Your task to perform on an android device: Open notification settings Image 0: 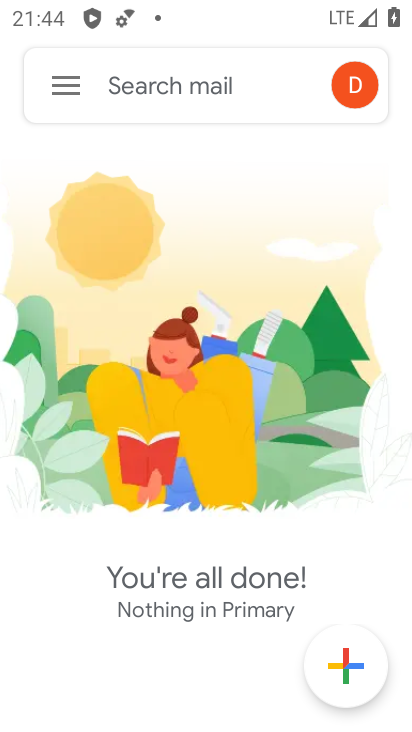
Step 0: press home button
Your task to perform on an android device: Open notification settings Image 1: 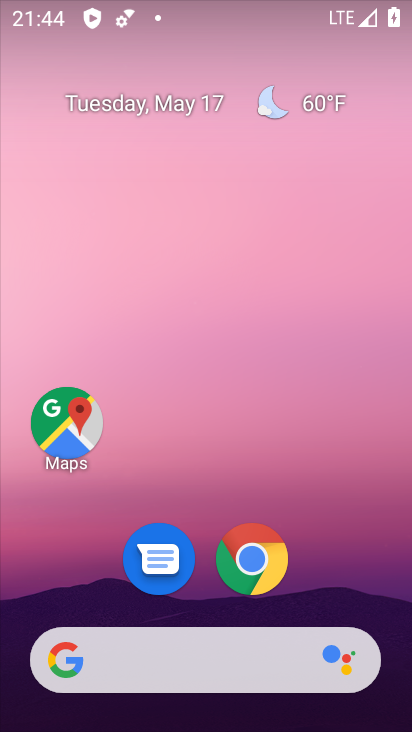
Step 1: drag from (346, 481) to (311, 99)
Your task to perform on an android device: Open notification settings Image 2: 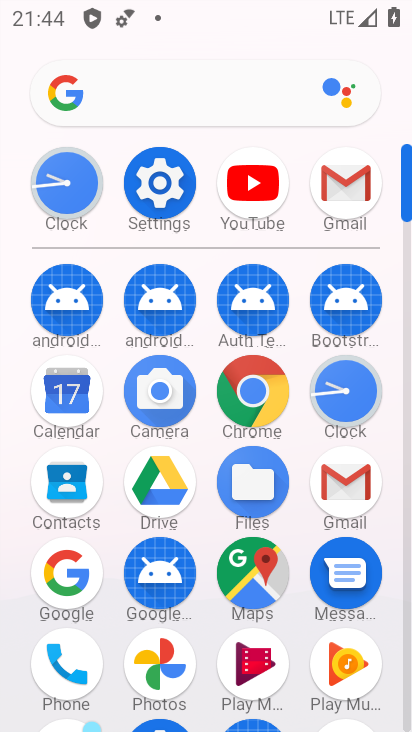
Step 2: click (171, 181)
Your task to perform on an android device: Open notification settings Image 3: 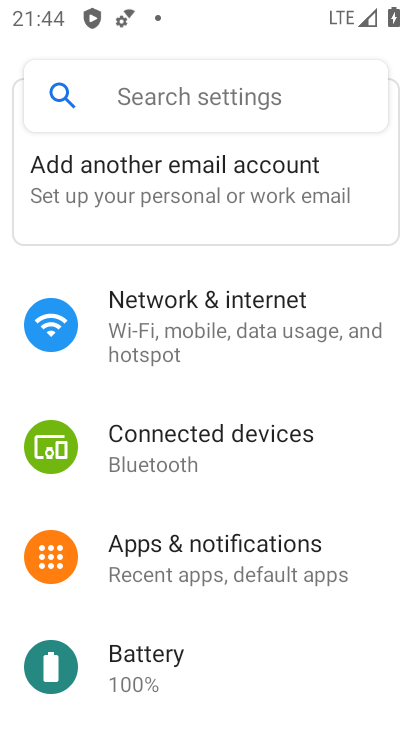
Step 3: click (199, 538)
Your task to perform on an android device: Open notification settings Image 4: 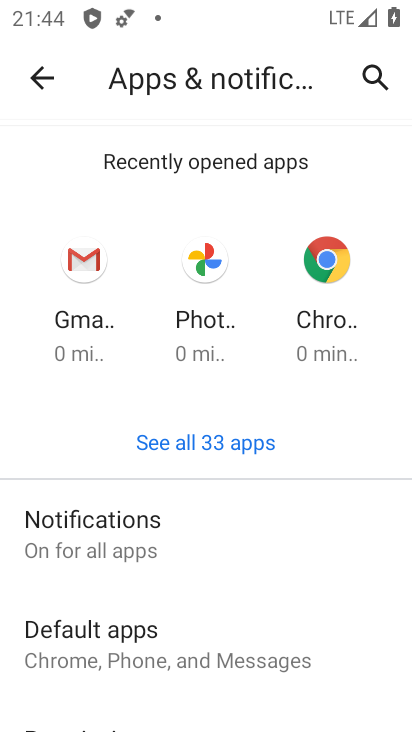
Step 4: click (101, 514)
Your task to perform on an android device: Open notification settings Image 5: 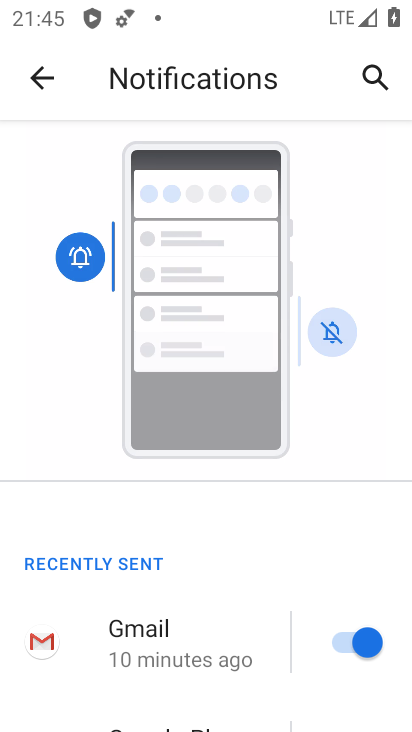
Step 5: task complete